Your task to perform on an android device: star an email in the gmail app Image 0: 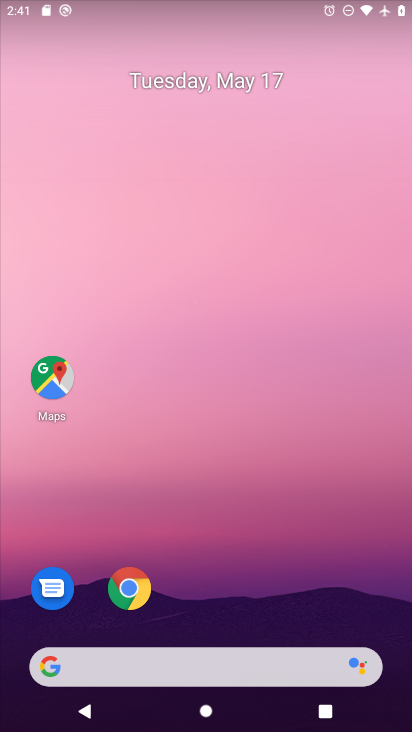
Step 0: drag from (192, 604) to (181, 141)
Your task to perform on an android device: star an email in the gmail app Image 1: 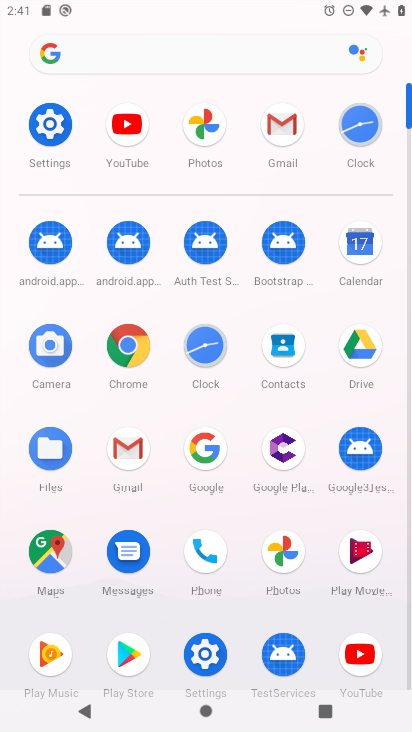
Step 1: click (271, 124)
Your task to perform on an android device: star an email in the gmail app Image 2: 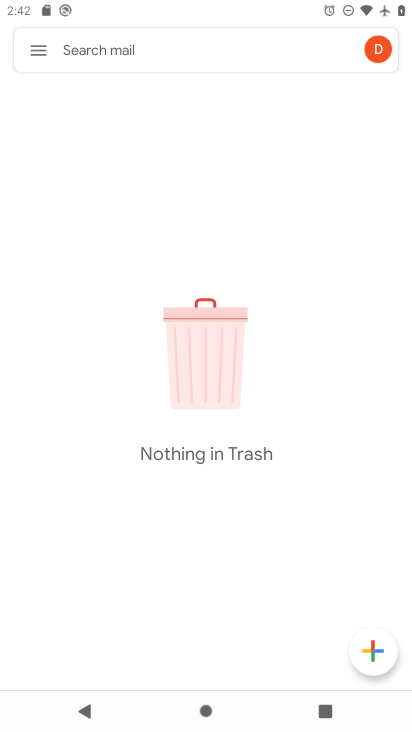
Step 2: click (44, 52)
Your task to perform on an android device: star an email in the gmail app Image 3: 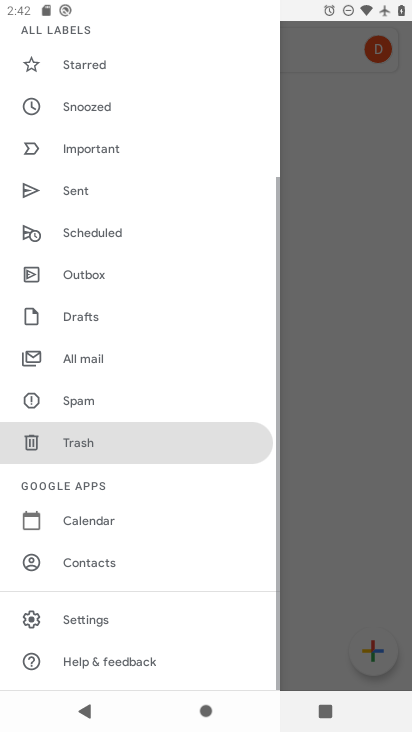
Step 3: drag from (97, 189) to (98, 560)
Your task to perform on an android device: star an email in the gmail app Image 4: 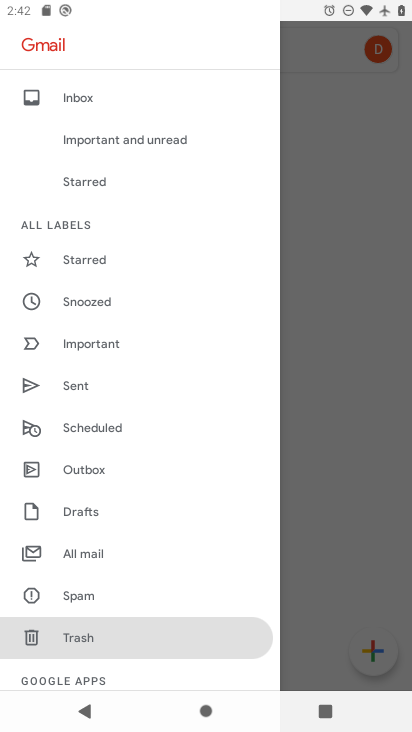
Step 4: click (62, 91)
Your task to perform on an android device: star an email in the gmail app Image 5: 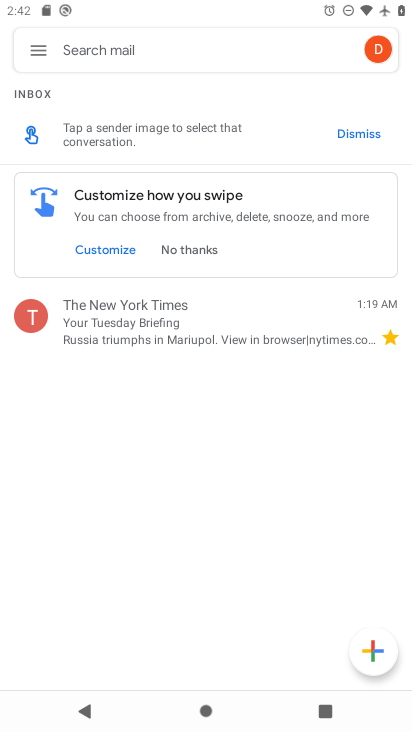
Step 5: click (203, 333)
Your task to perform on an android device: star an email in the gmail app Image 6: 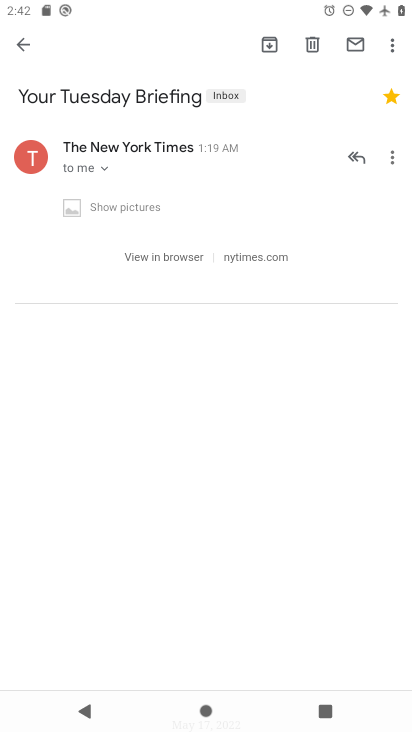
Step 6: task complete